Your task to perform on an android device: Open accessibility settings Image 0: 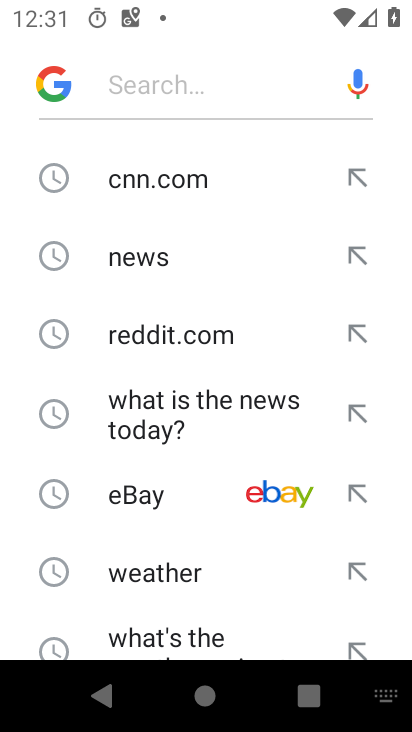
Step 0: press home button
Your task to perform on an android device: Open accessibility settings Image 1: 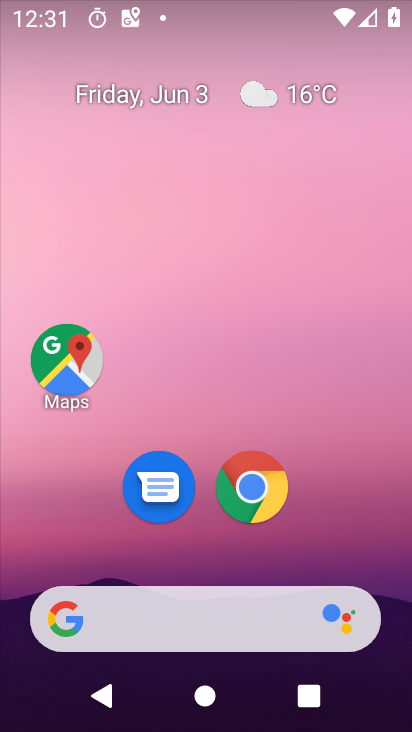
Step 1: drag from (207, 617) to (36, 208)
Your task to perform on an android device: Open accessibility settings Image 2: 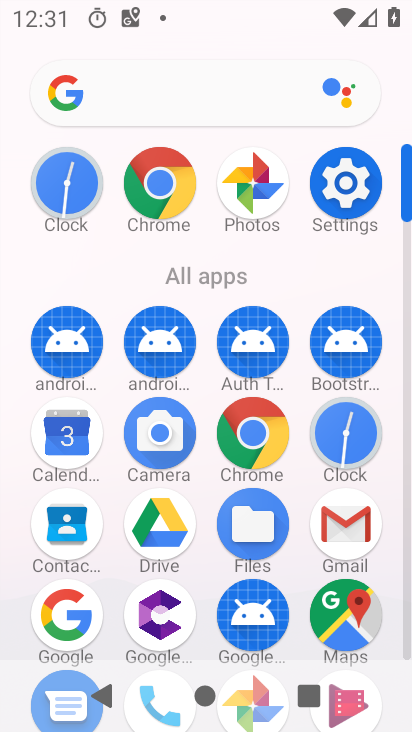
Step 2: click (355, 178)
Your task to perform on an android device: Open accessibility settings Image 3: 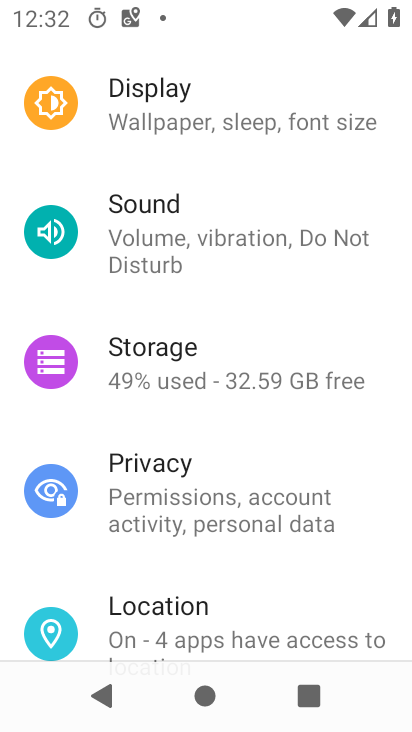
Step 3: drag from (210, 518) to (10, 281)
Your task to perform on an android device: Open accessibility settings Image 4: 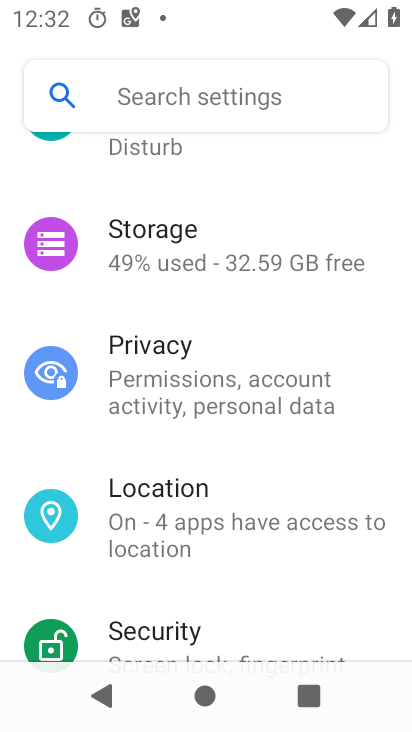
Step 4: click (204, 615)
Your task to perform on an android device: Open accessibility settings Image 5: 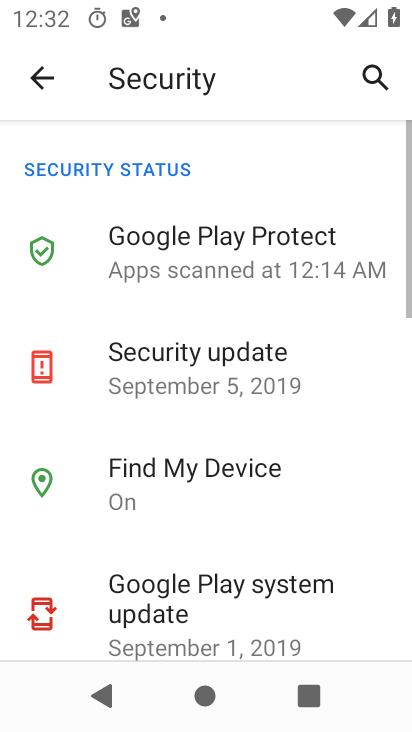
Step 5: task complete